Your task to perform on an android device: turn on improve location accuracy Image 0: 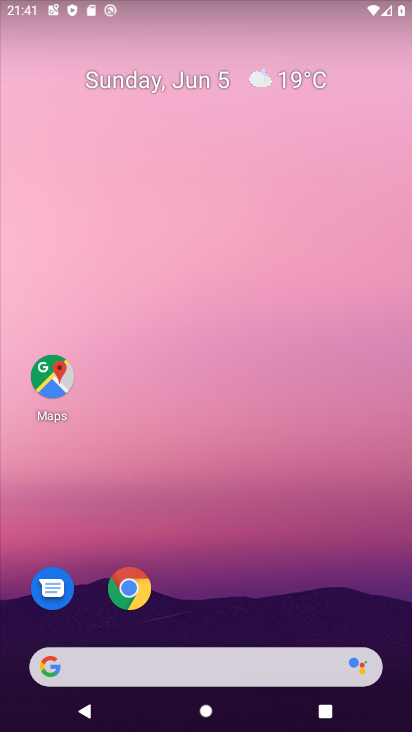
Step 0: drag from (342, 591) to (360, 117)
Your task to perform on an android device: turn on improve location accuracy Image 1: 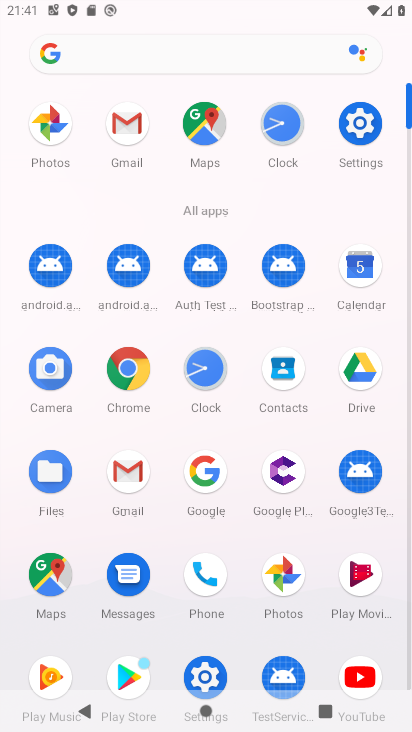
Step 1: click (362, 133)
Your task to perform on an android device: turn on improve location accuracy Image 2: 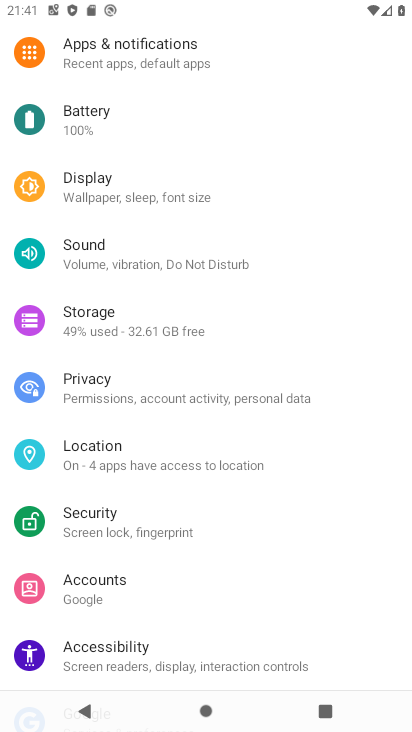
Step 2: drag from (319, 485) to (333, 263)
Your task to perform on an android device: turn on improve location accuracy Image 3: 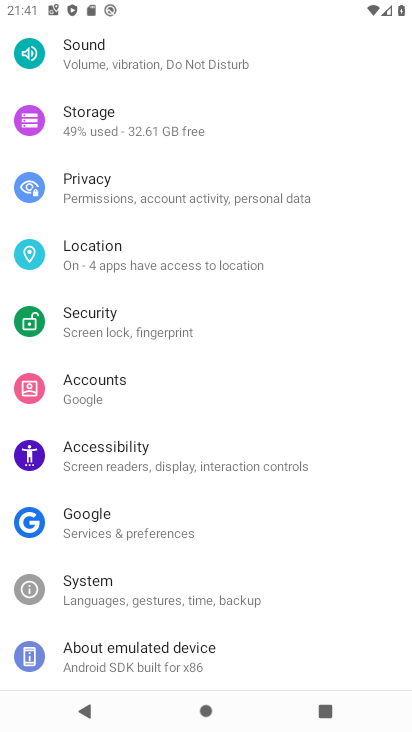
Step 3: drag from (351, 499) to (342, 293)
Your task to perform on an android device: turn on improve location accuracy Image 4: 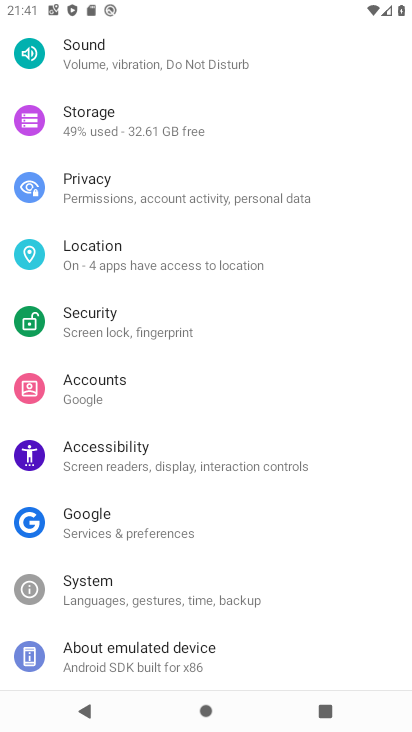
Step 4: drag from (340, 232) to (338, 344)
Your task to perform on an android device: turn on improve location accuracy Image 5: 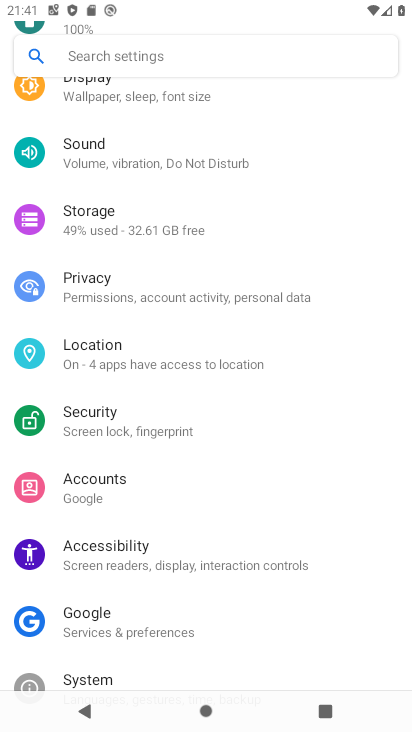
Step 5: click (245, 361)
Your task to perform on an android device: turn on improve location accuracy Image 6: 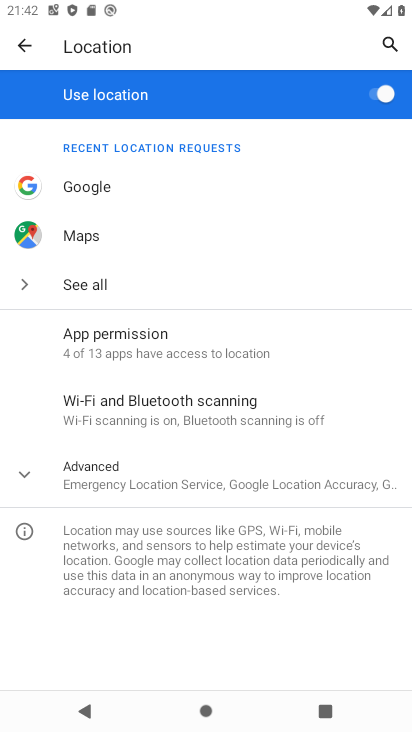
Step 6: task complete